Your task to perform on an android device: Open battery settings Image 0: 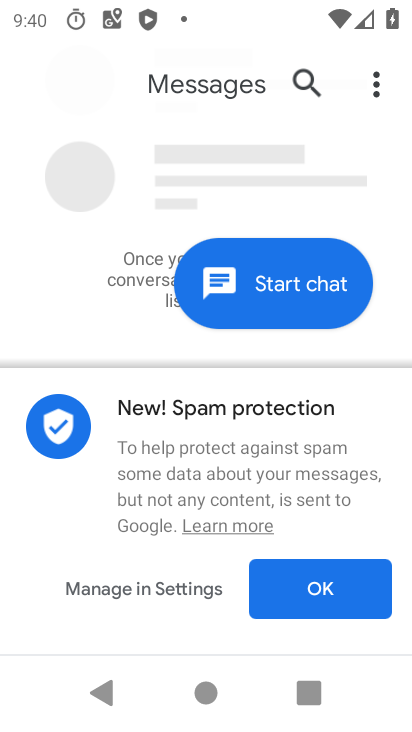
Step 0: press back button
Your task to perform on an android device: Open battery settings Image 1: 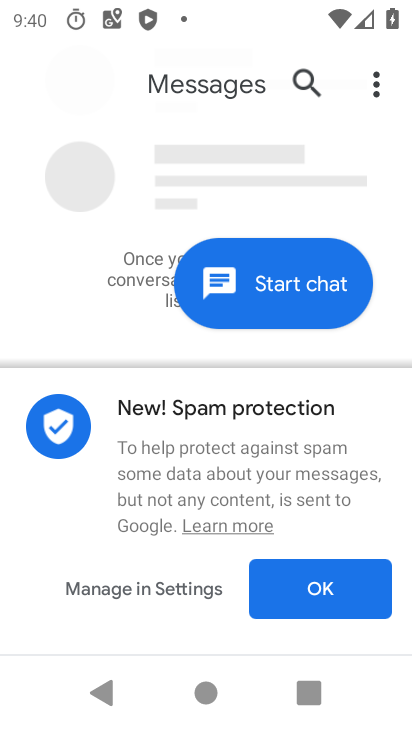
Step 1: press back button
Your task to perform on an android device: Open battery settings Image 2: 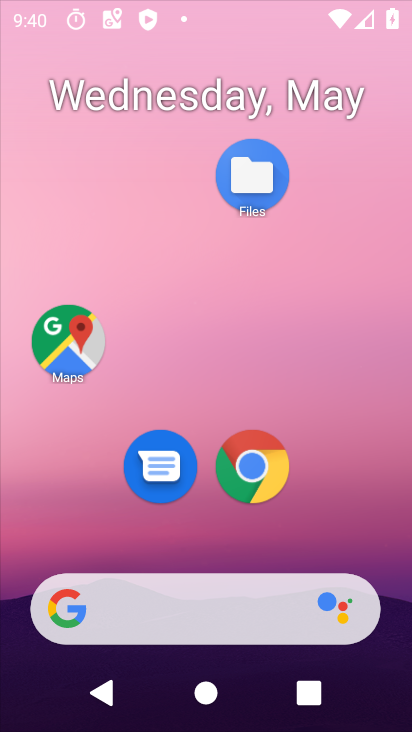
Step 2: press back button
Your task to perform on an android device: Open battery settings Image 3: 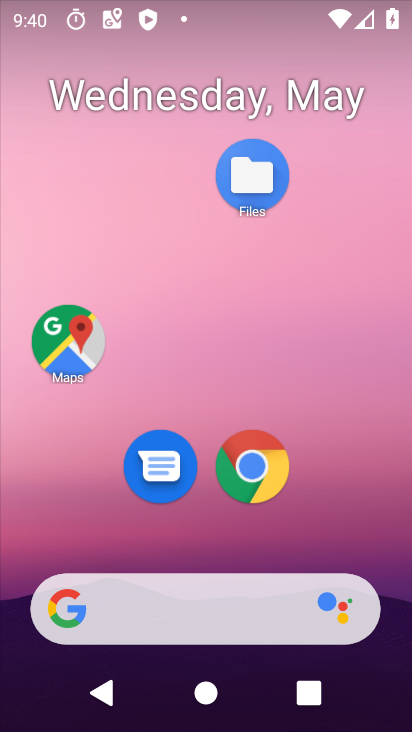
Step 3: drag from (320, 554) to (213, 191)
Your task to perform on an android device: Open battery settings Image 4: 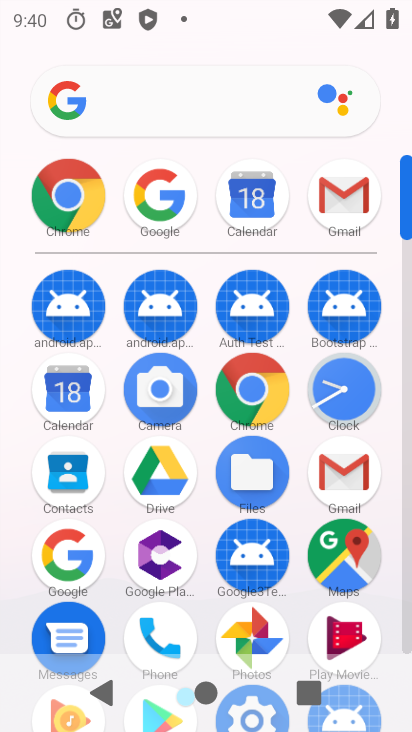
Step 4: drag from (172, 467) to (216, 192)
Your task to perform on an android device: Open battery settings Image 5: 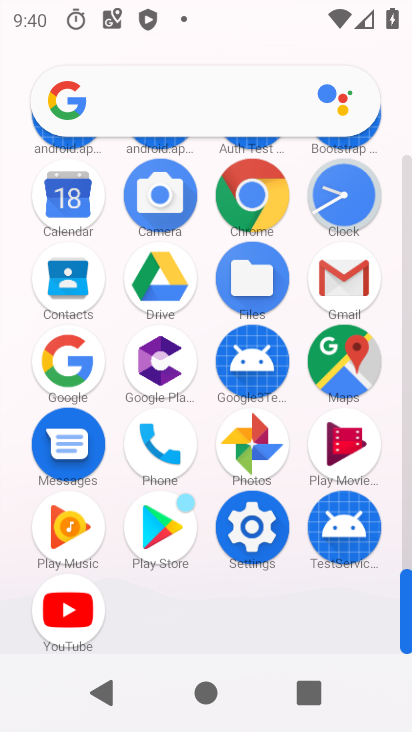
Step 5: drag from (215, 462) to (177, 236)
Your task to perform on an android device: Open battery settings Image 6: 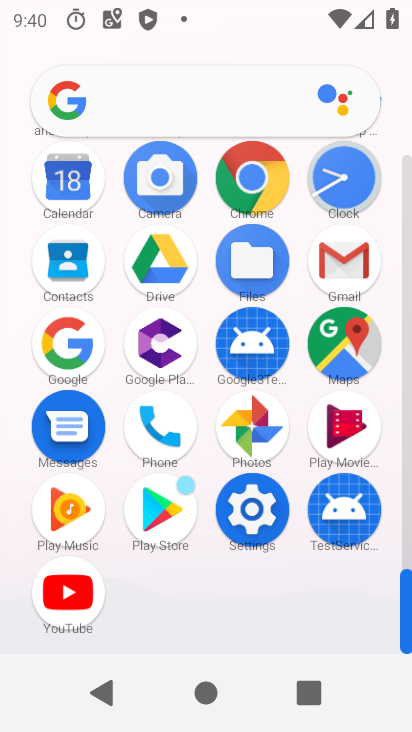
Step 6: drag from (189, 438) to (152, 166)
Your task to perform on an android device: Open battery settings Image 7: 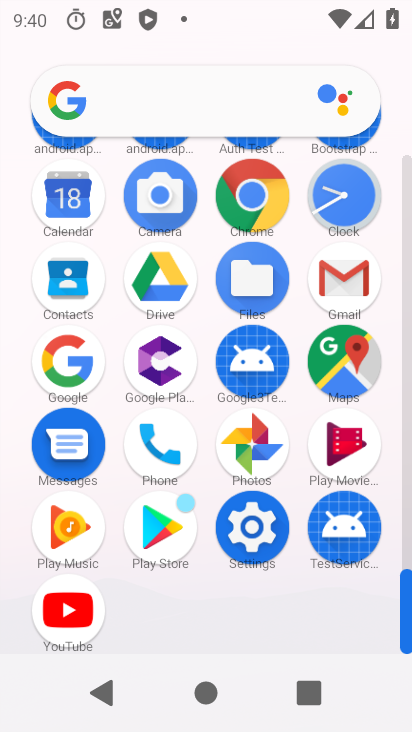
Step 7: click (258, 531)
Your task to perform on an android device: Open battery settings Image 8: 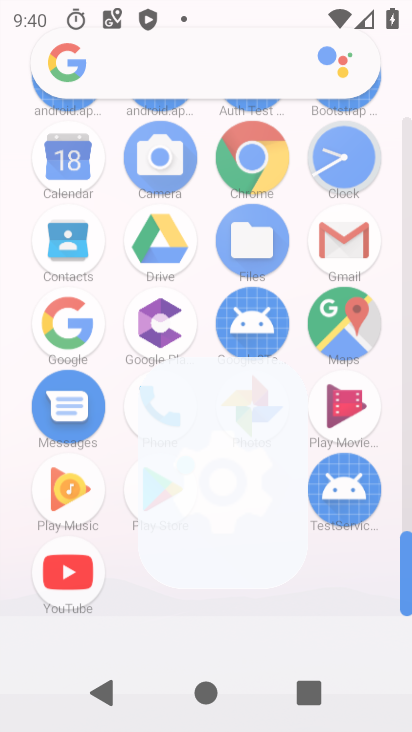
Step 8: click (257, 531)
Your task to perform on an android device: Open battery settings Image 9: 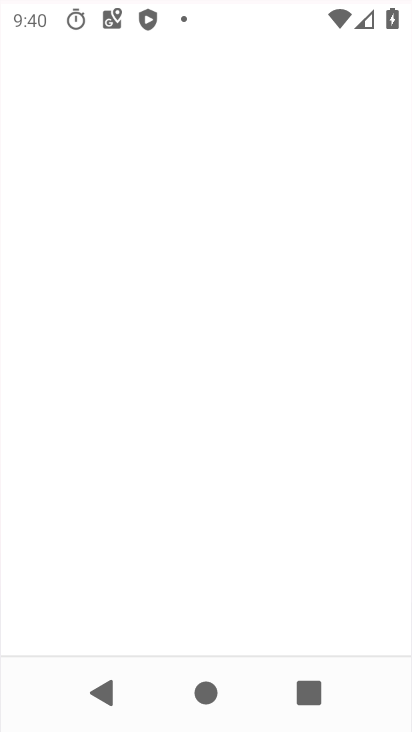
Step 9: click (257, 531)
Your task to perform on an android device: Open battery settings Image 10: 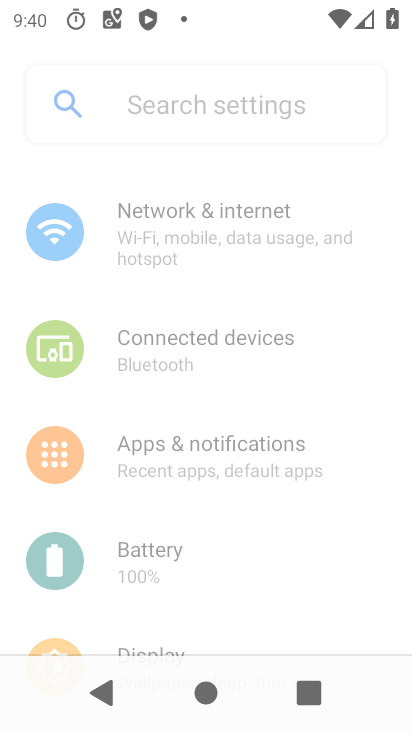
Step 10: click (257, 531)
Your task to perform on an android device: Open battery settings Image 11: 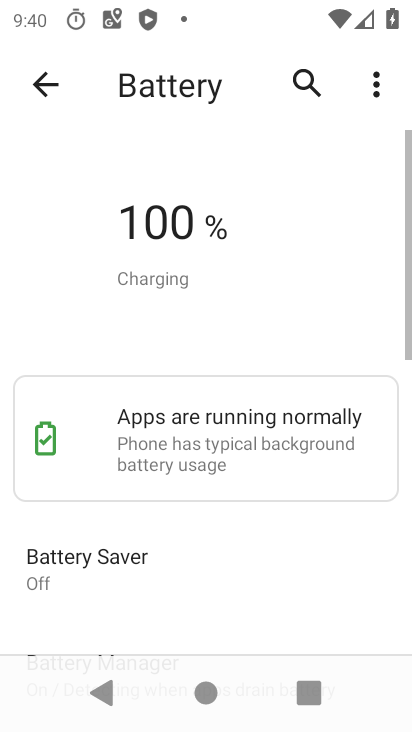
Step 11: click (47, 91)
Your task to perform on an android device: Open battery settings Image 12: 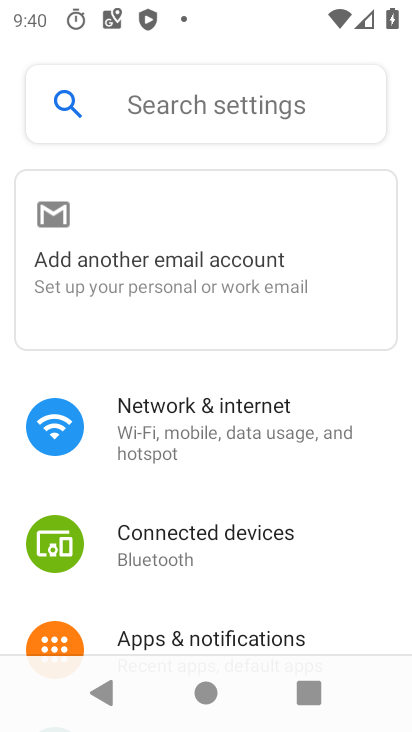
Step 12: task complete